Your task to perform on an android device: Search for pizza restaurants on Maps Image 0: 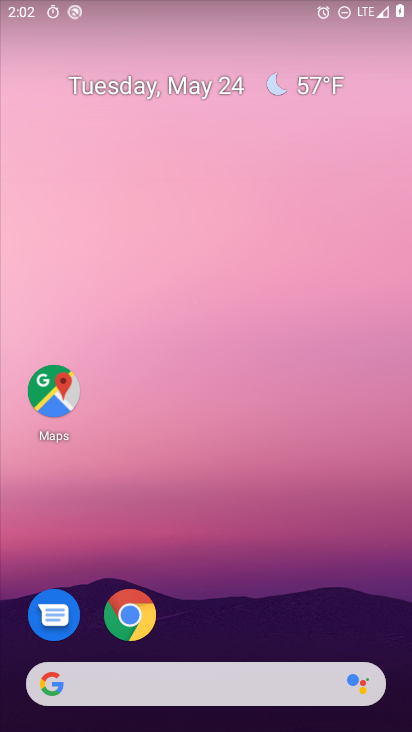
Step 0: click (52, 384)
Your task to perform on an android device: Search for pizza restaurants on Maps Image 1: 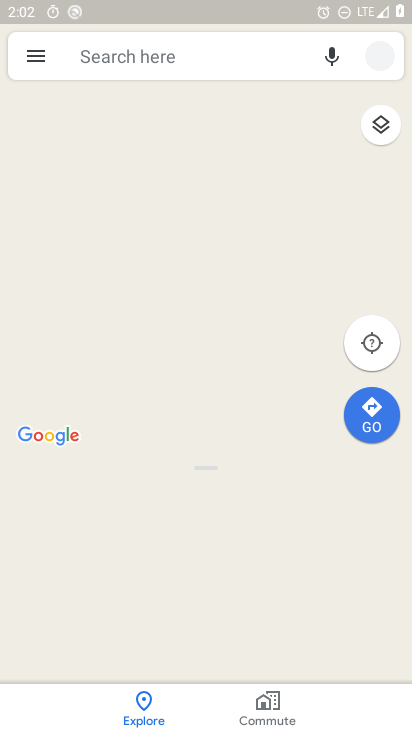
Step 1: click (216, 48)
Your task to perform on an android device: Search for pizza restaurants on Maps Image 2: 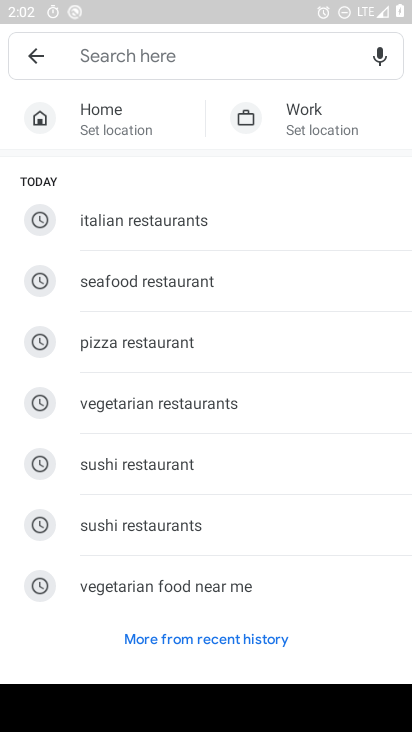
Step 2: click (92, 324)
Your task to perform on an android device: Search for pizza restaurants on Maps Image 3: 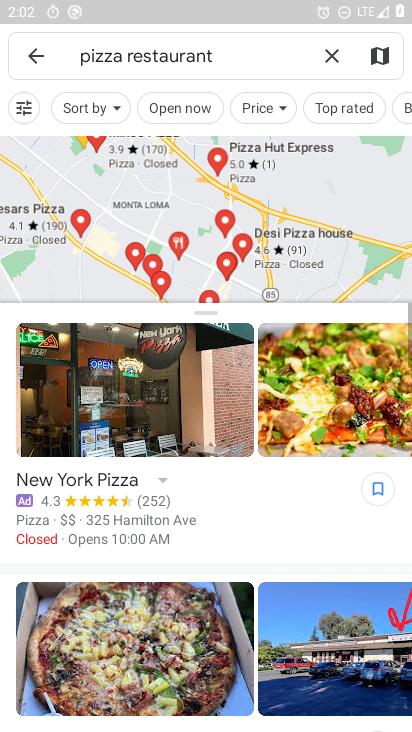
Step 3: task complete